Your task to perform on an android device: open a bookmark in the chrome app Image 0: 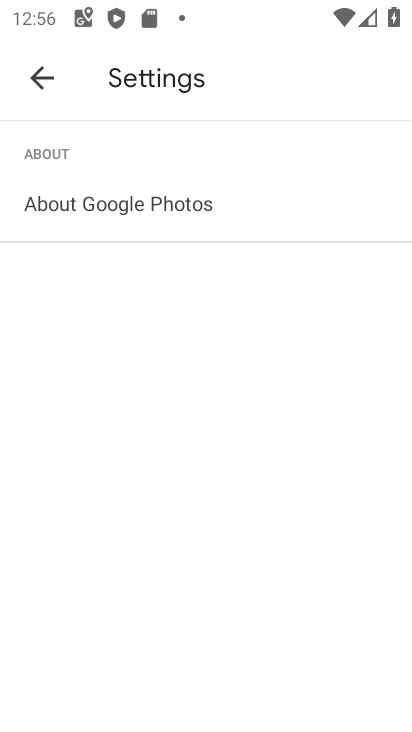
Step 0: press home button
Your task to perform on an android device: open a bookmark in the chrome app Image 1: 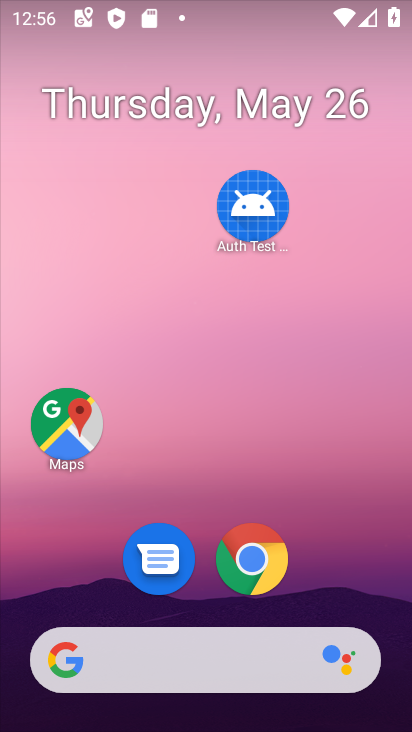
Step 1: click (269, 565)
Your task to perform on an android device: open a bookmark in the chrome app Image 2: 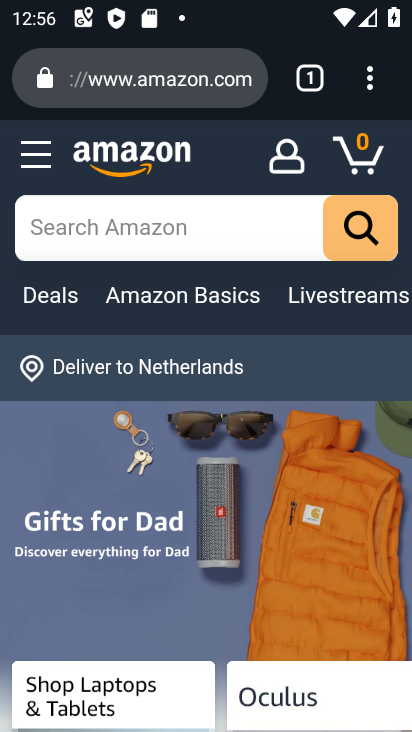
Step 2: click (383, 62)
Your task to perform on an android device: open a bookmark in the chrome app Image 3: 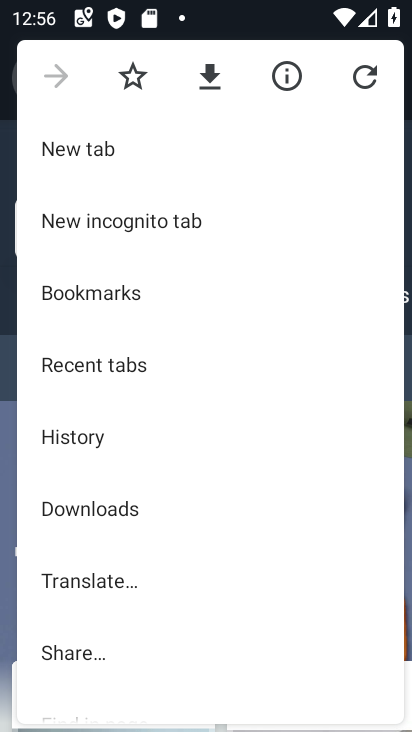
Step 3: click (118, 301)
Your task to perform on an android device: open a bookmark in the chrome app Image 4: 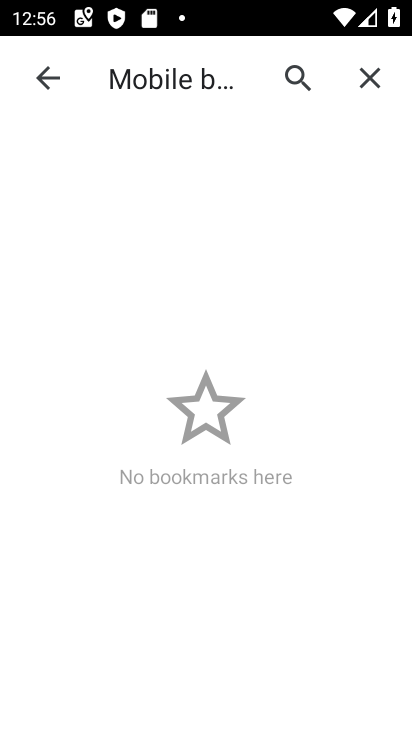
Step 4: task complete